Your task to perform on an android device: Toggle the flashlight Image 0: 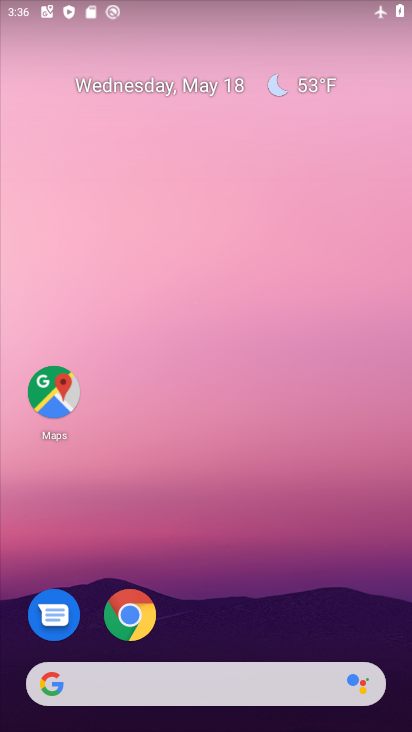
Step 0: drag from (298, 631) to (237, 225)
Your task to perform on an android device: Toggle the flashlight Image 1: 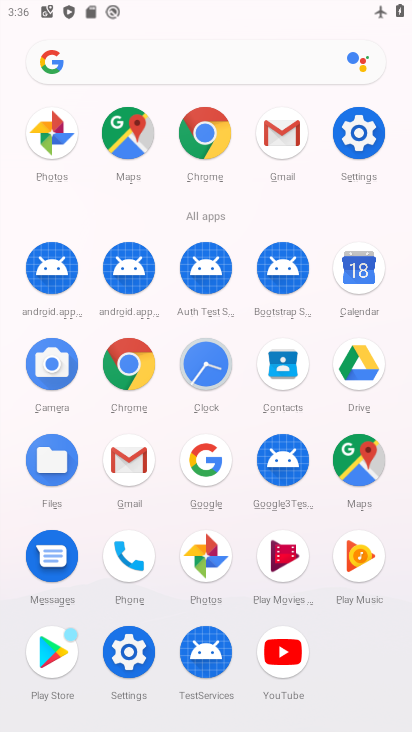
Step 1: click (358, 146)
Your task to perform on an android device: Toggle the flashlight Image 2: 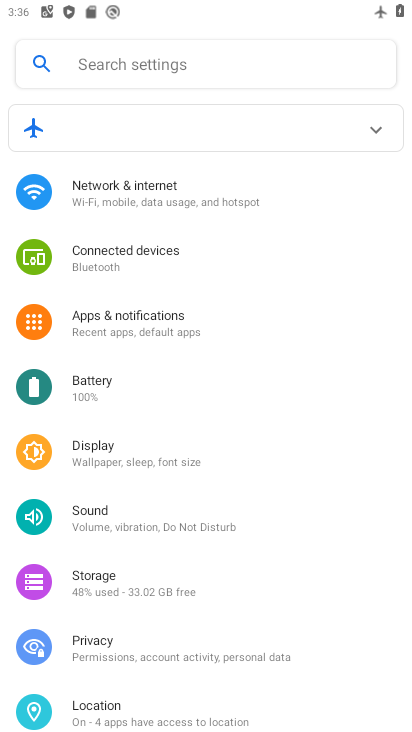
Step 2: click (132, 462)
Your task to perform on an android device: Toggle the flashlight Image 3: 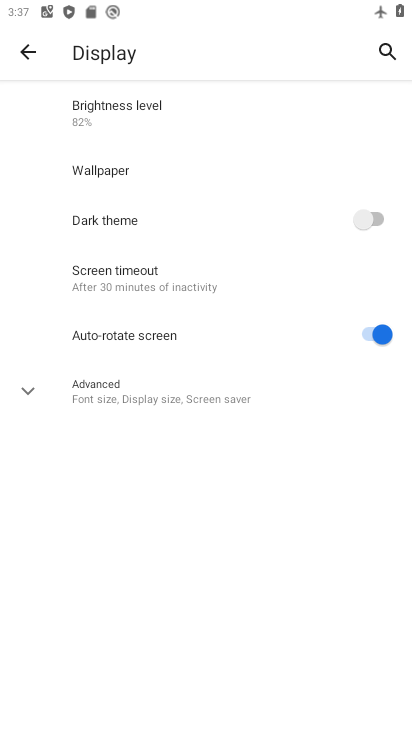
Step 3: task complete